Your task to perform on an android device: star an email in the gmail app Image 0: 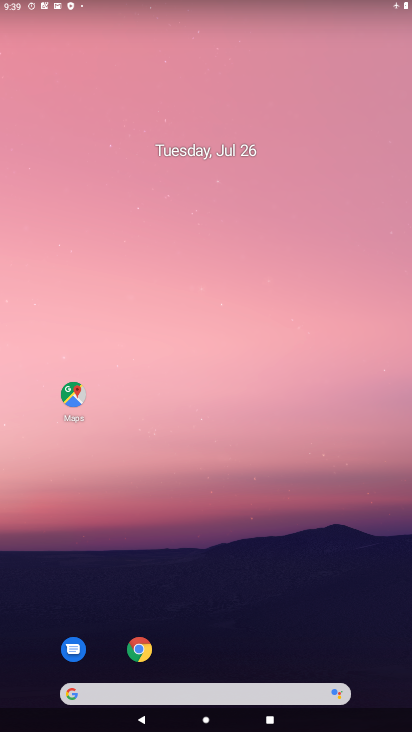
Step 0: drag from (193, 503) to (292, 76)
Your task to perform on an android device: star an email in the gmail app Image 1: 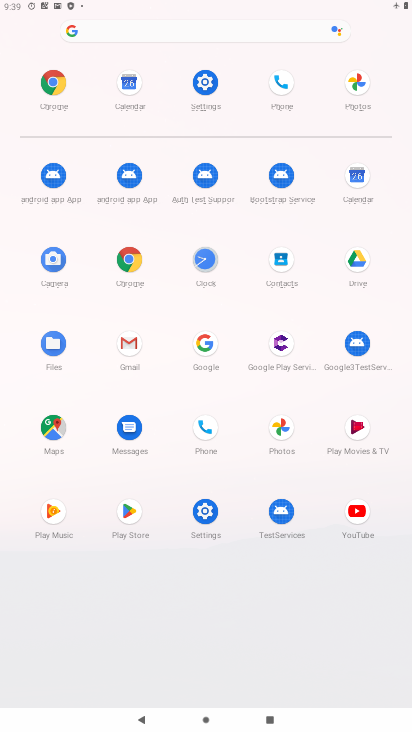
Step 1: click (128, 343)
Your task to perform on an android device: star an email in the gmail app Image 2: 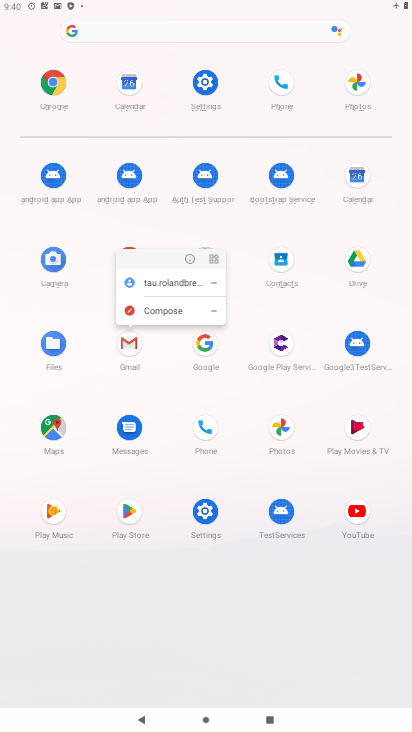
Step 2: click (182, 257)
Your task to perform on an android device: star an email in the gmail app Image 3: 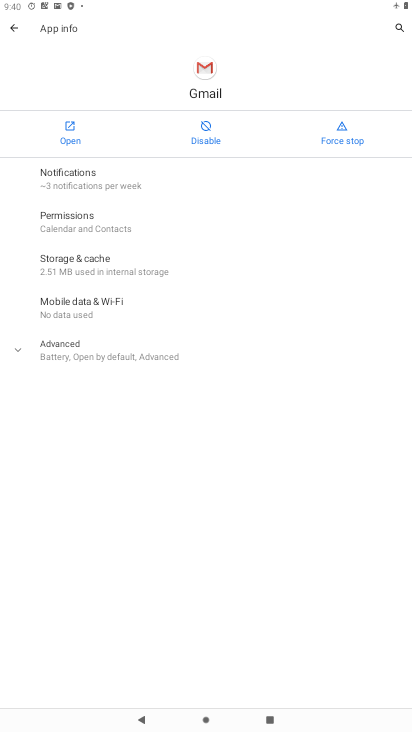
Step 3: click (69, 128)
Your task to perform on an android device: star an email in the gmail app Image 4: 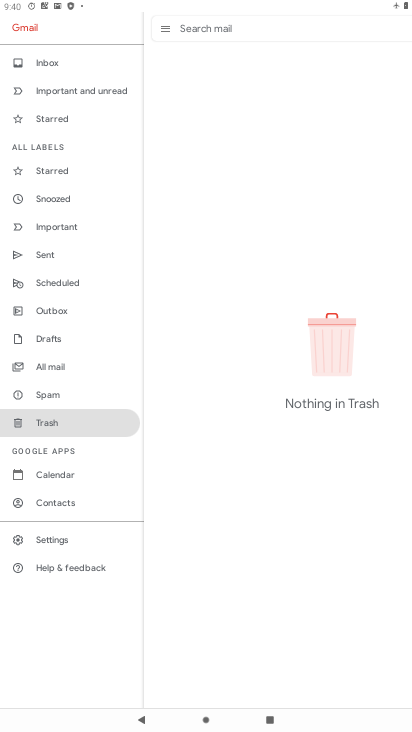
Step 4: task complete